Your task to perform on an android device: When is my next appointment? Image 0: 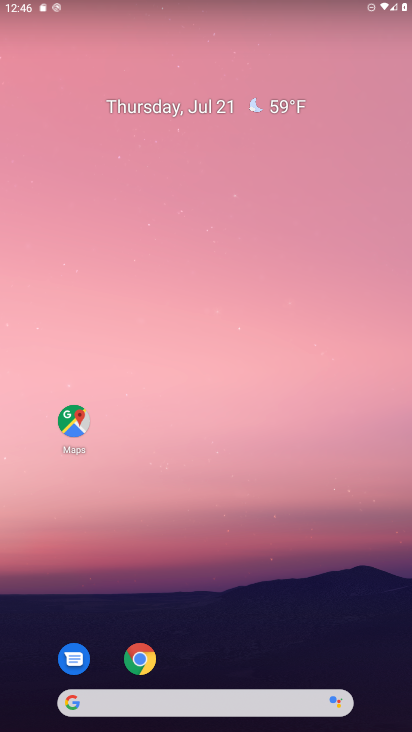
Step 0: drag from (11, 672) to (268, 86)
Your task to perform on an android device: When is my next appointment? Image 1: 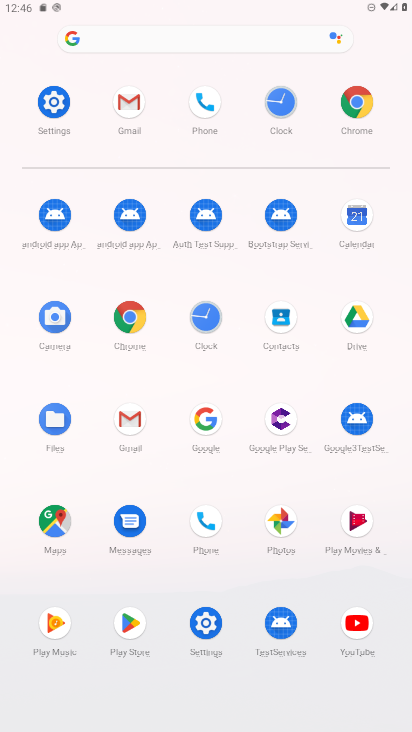
Step 1: click (363, 218)
Your task to perform on an android device: When is my next appointment? Image 2: 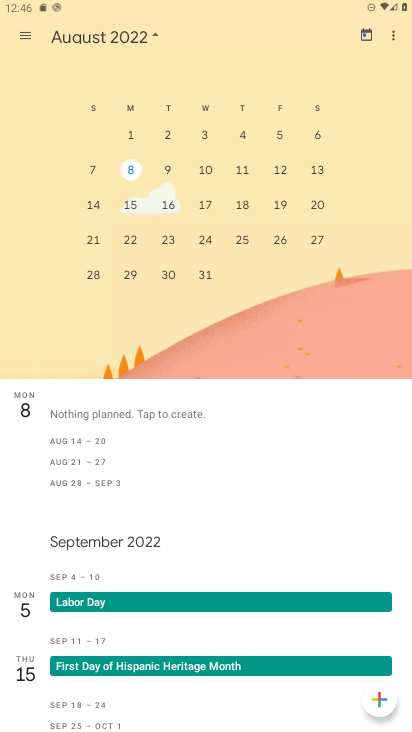
Step 2: click (164, 169)
Your task to perform on an android device: When is my next appointment? Image 3: 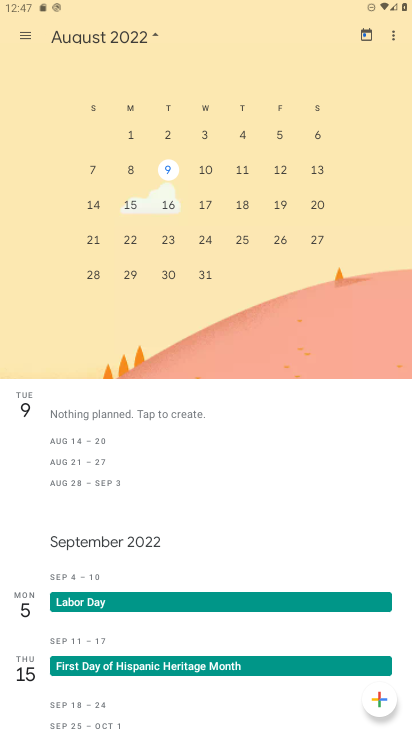
Step 3: click (31, 40)
Your task to perform on an android device: When is my next appointment? Image 4: 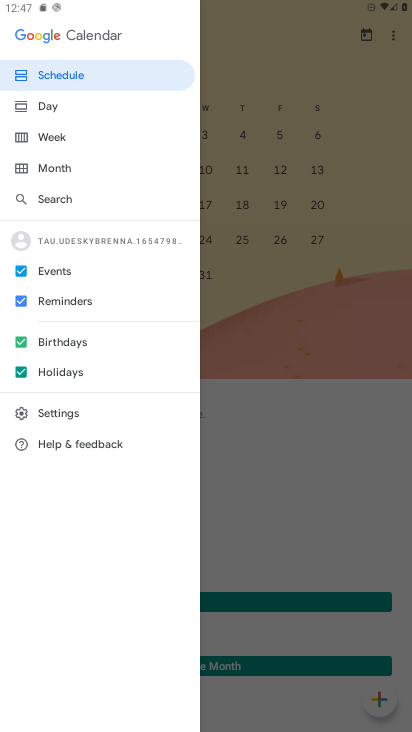
Step 4: click (111, 72)
Your task to perform on an android device: When is my next appointment? Image 5: 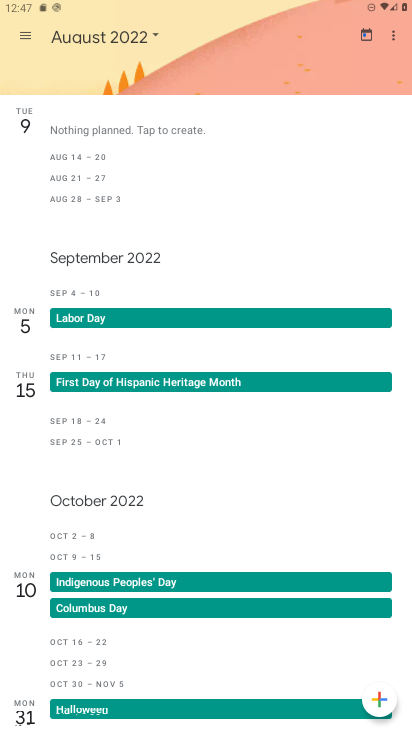
Step 5: task complete